Your task to perform on an android device: Go to accessibility settings Image 0: 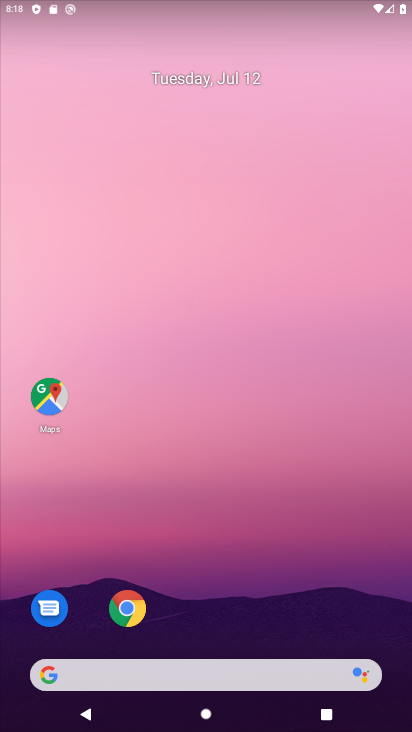
Step 0: drag from (219, 632) to (265, 120)
Your task to perform on an android device: Go to accessibility settings Image 1: 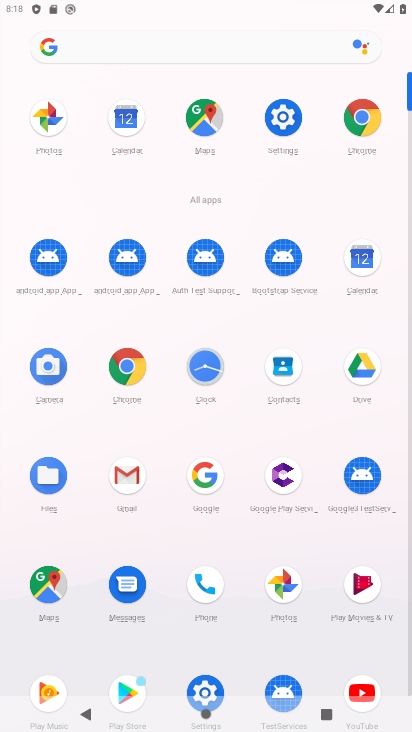
Step 1: click (280, 120)
Your task to perform on an android device: Go to accessibility settings Image 2: 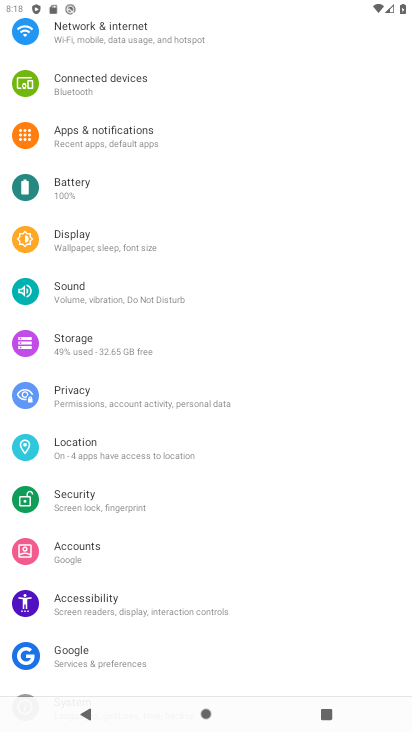
Step 2: click (98, 611)
Your task to perform on an android device: Go to accessibility settings Image 3: 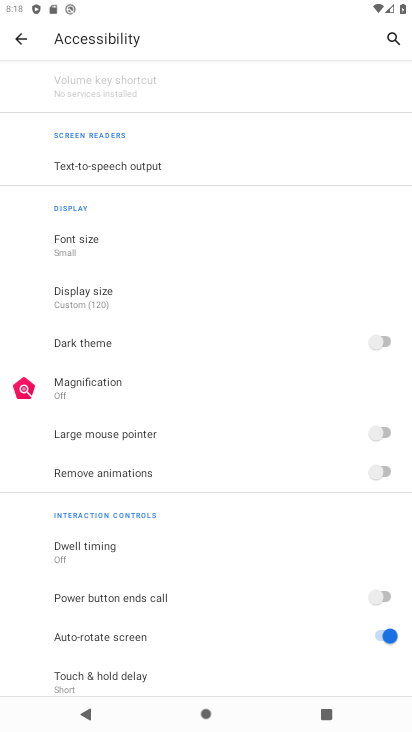
Step 3: task complete